Your task to perform on an android device: Go to wifi settings Image 0: 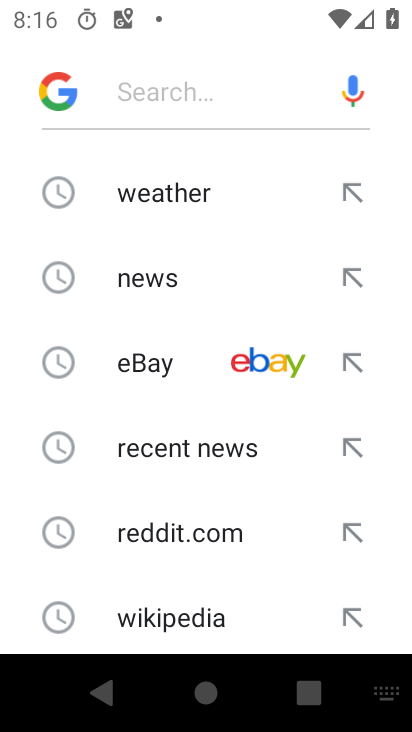
Step 0: press home button
Your task to perform on an android device: Go to wifi settings Image 1: 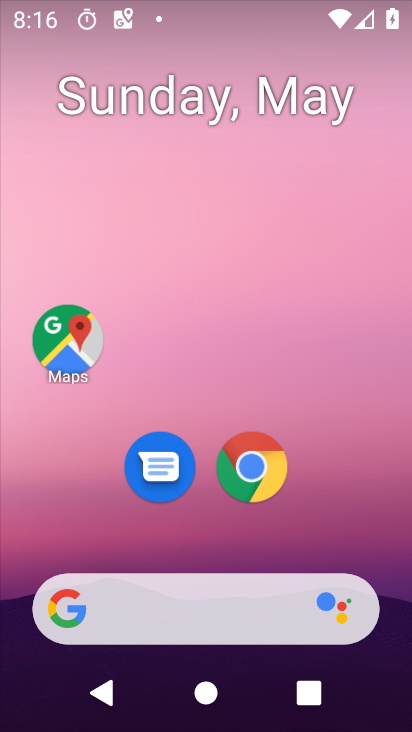
Step 1: drag from (85, 481) to (218, 189)
Your task to perform on an android device: Go to wifi settings Image 2: 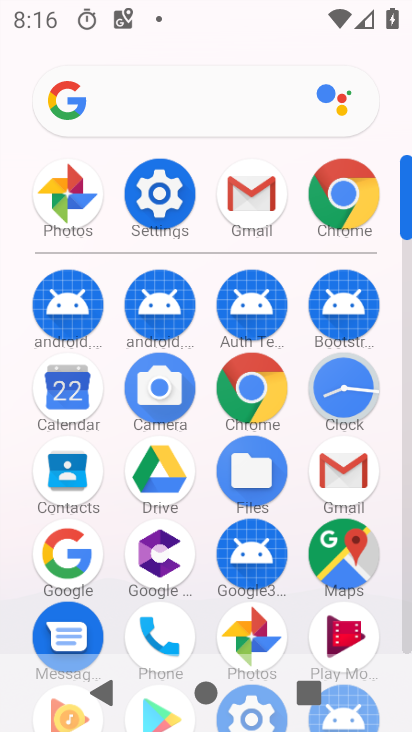
Step 2: click (156, 192)
Your task to perform on an android device: Go to wifi settings Image 3: 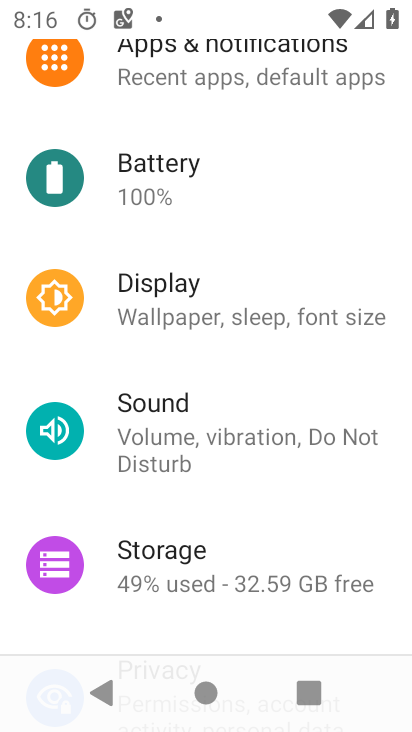
Step 3: drag from (279, 74) to (282, 503)
Your task to perform on an android device: Go to wifi settings Image 4: 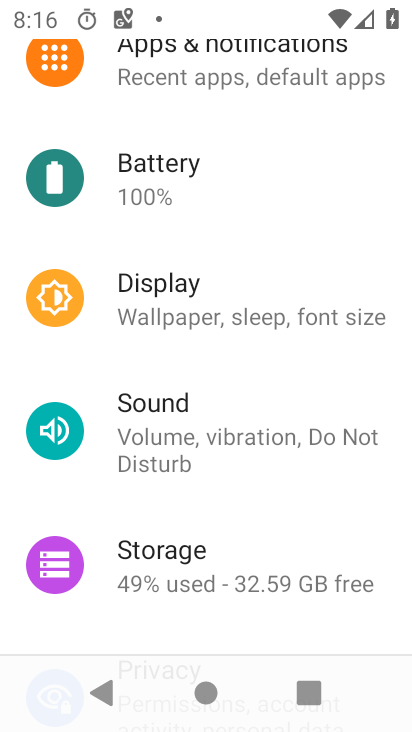
Step 4: drag from (188, 117) to (195, 554)
Your task to perform on an android device: Go to wifi settings Image 5: 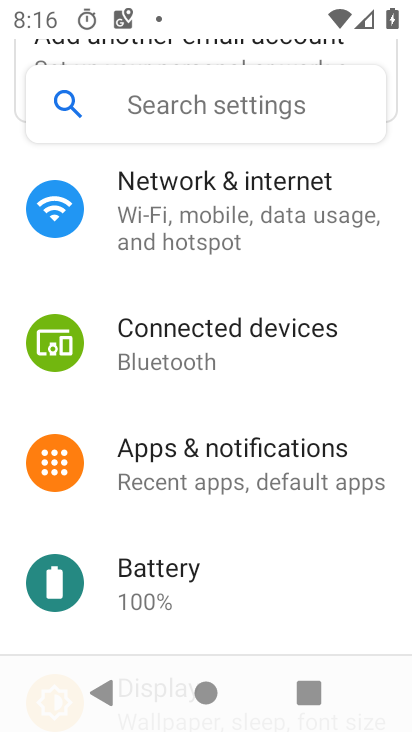
Step 5: click (218, 202)
Your task to perform on an android device: Go to wifi settings Image 6: 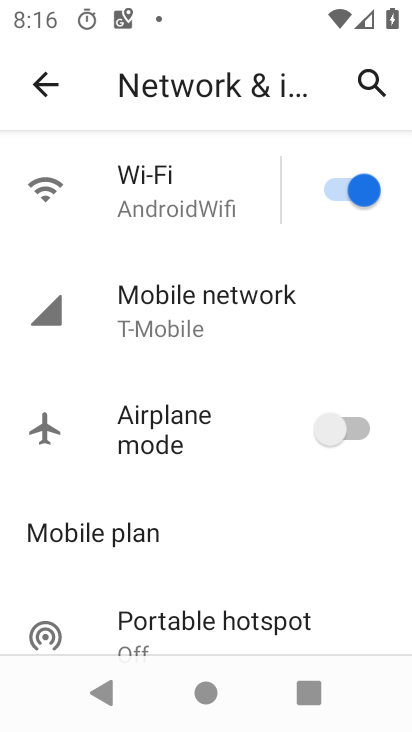
Step 6: click (180, 201)
Your task to perform on an android device: Go to wifi settings Image 7: 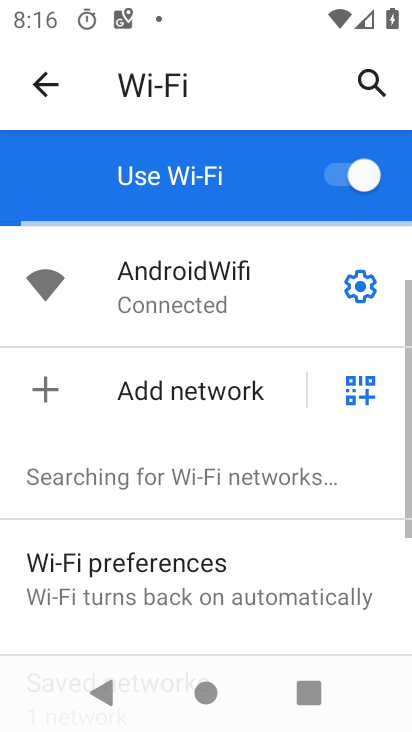
Step 7: click (357, 291)
Your task to perform on an android device: Go to wifi settings Image 8: 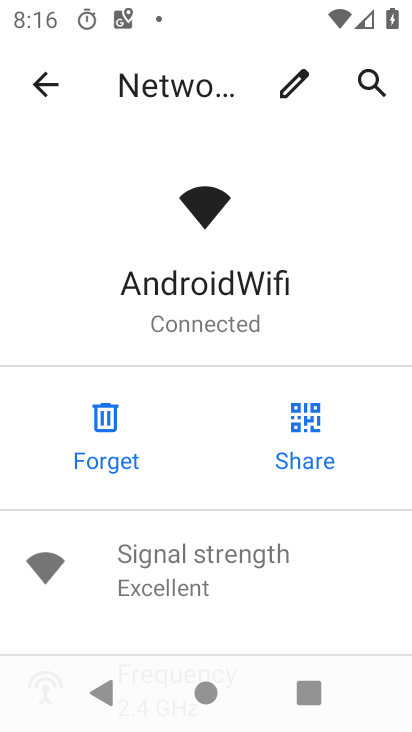
Step 8: task complete